Your task to perform on an android device: Go to display settings Image 0: 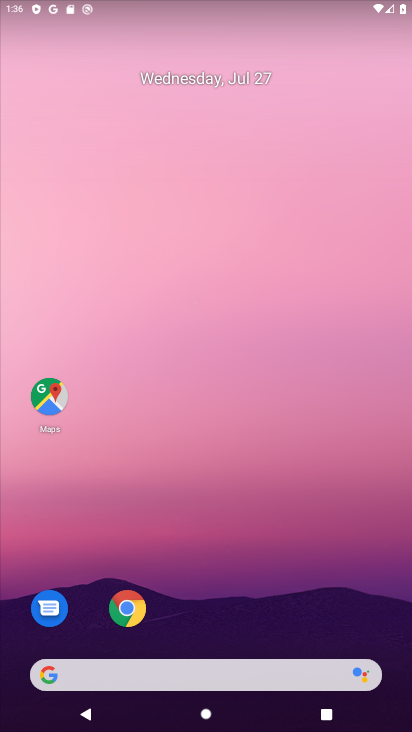
Step 0: drag from (38, 701) to (249, 33)
Your task to perform on an android device: Go to display settings Image 1: 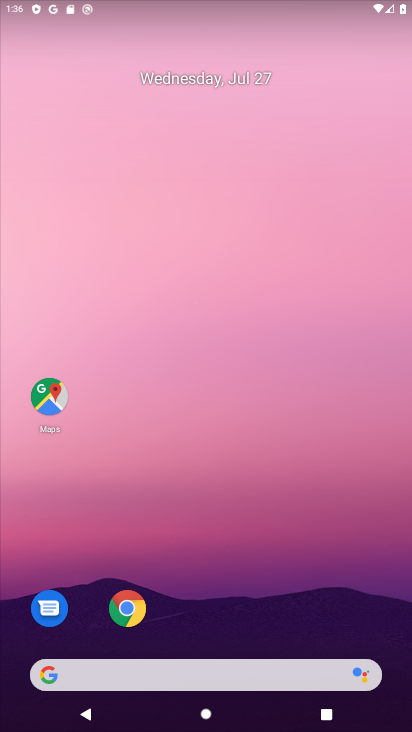
Step 1: drag from (36, 700) to (404, 50)
Your task to perform on an android device: Go to display settings Image 2: 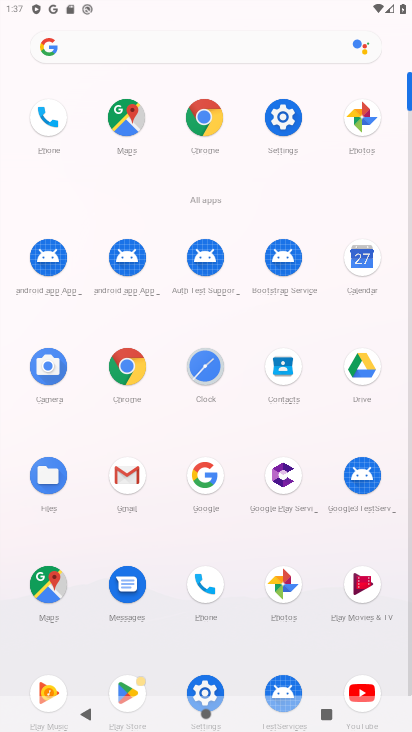
Step 2: click (206, 685)
Your task to perform on an android device: Go to display settings Image 3: 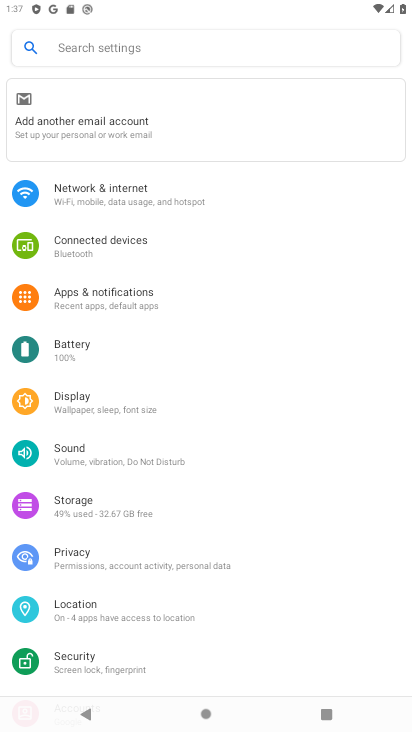
Step 3: click (124, 404)
Your task to perform on an android device: Go to display settings Image 4: 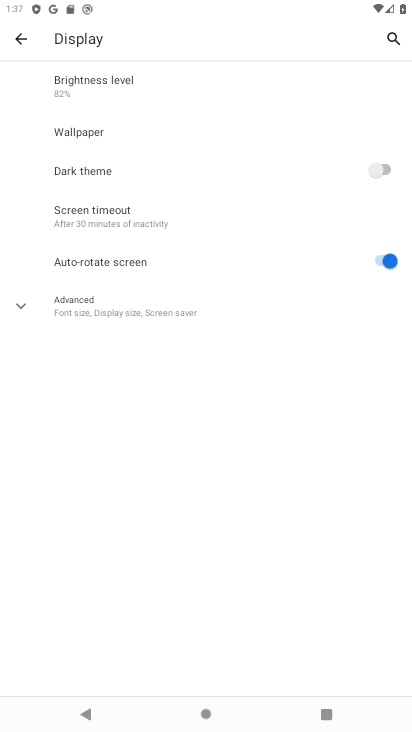
Step 4: task complete